Your task to perform on an android device: Open Google Chrome and click the shortcut for Amazon.com Image 0: 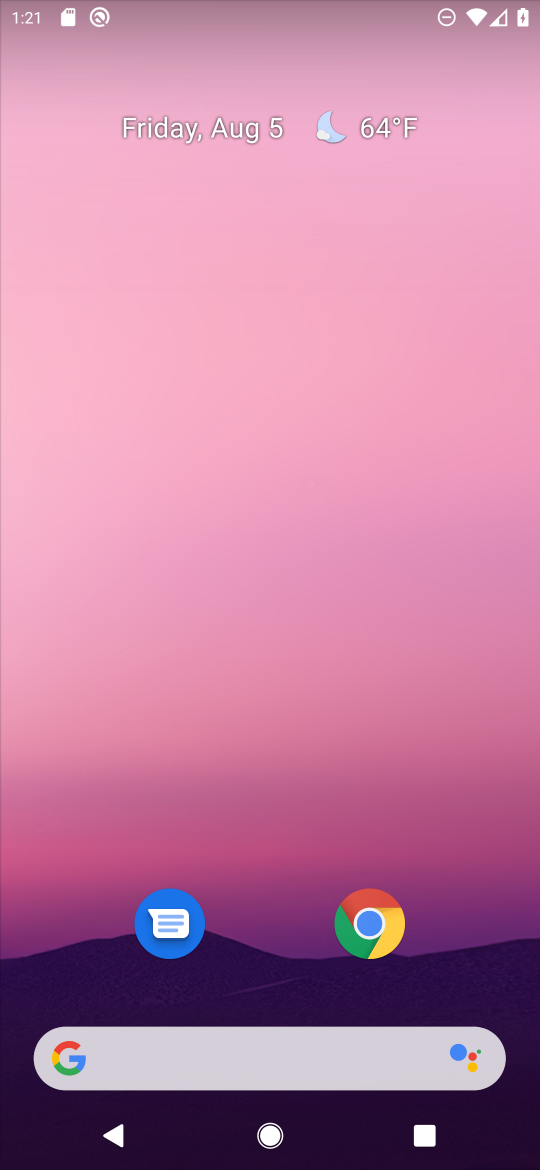
Step 0: click (374, 891)
Your task to perform on an android device: Open Google Chrome and click the shortcut for Amazon.com Image 1: 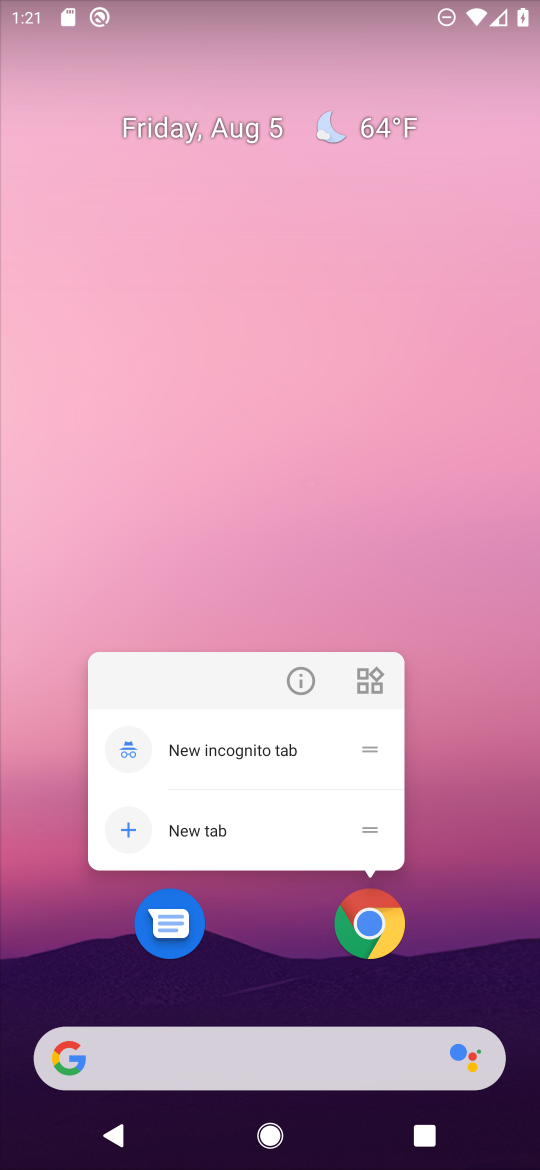
Step 1: click (372, 957)
Your task to perform on an android device: Open Google Chrome and click the shortcut for Amazon.com Image 2: 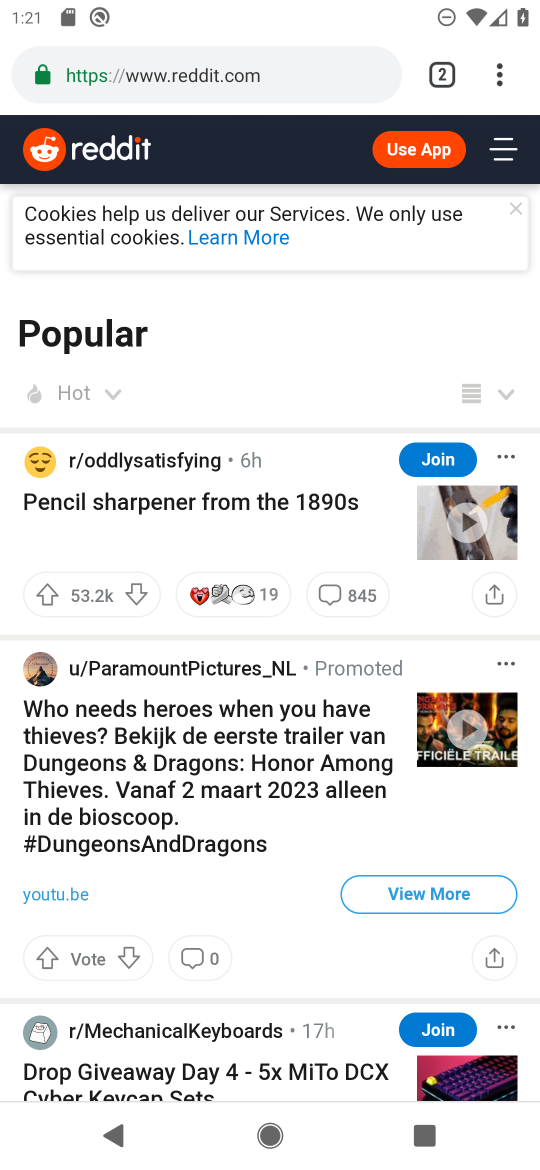
Step 2: click (430, 67)
Your task to perform on an android device: Open Google Chrome and click the shortcut for Amazon.com Image 3: 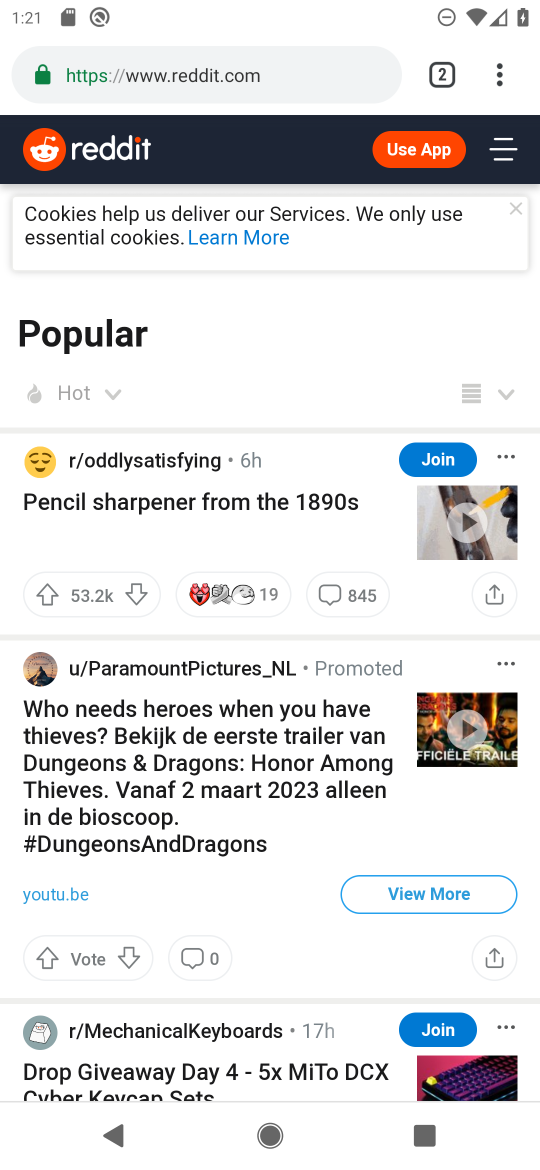
Step 3: click (447, 75)
Your task to perform on an android device: Open Google Chrome and click the shortcut for Amazon.com Image 4: 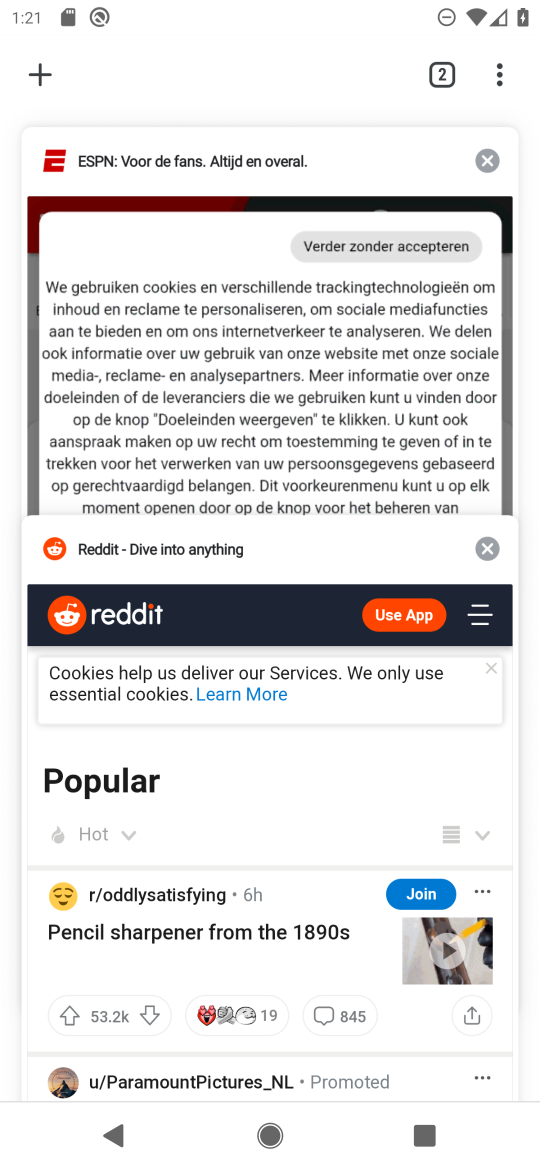
Step 4: click (20, 72)
Your task to perform on an android device: Open Google Chrome and click the shortcut for Amazon.com Image 5: 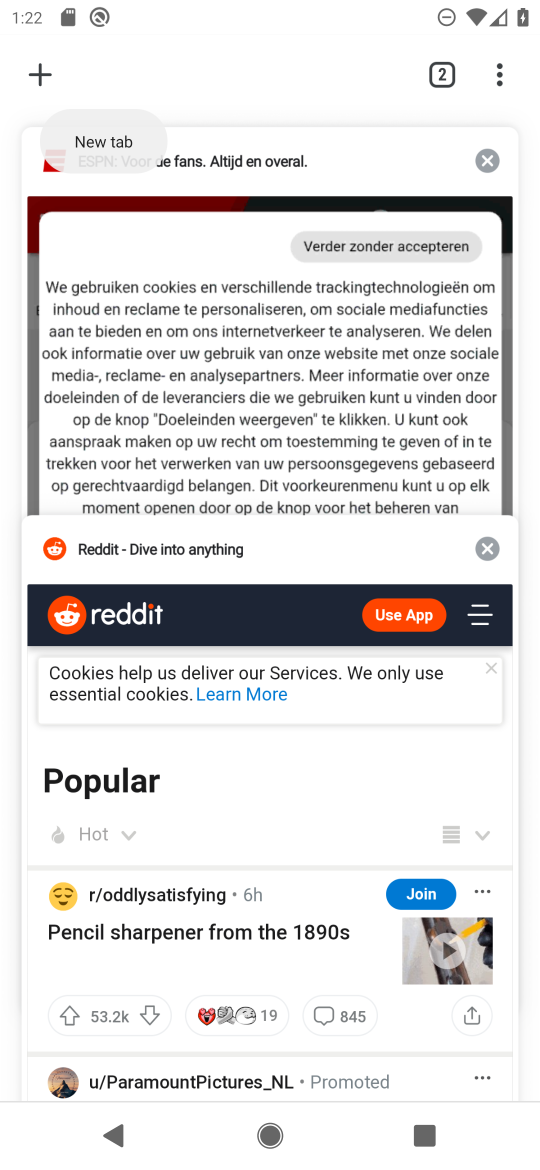
Step 5: click (42, 79)
Your task to perform on an android device: Open Google Chrome and click the shortcut for Amazon.com Image 6: 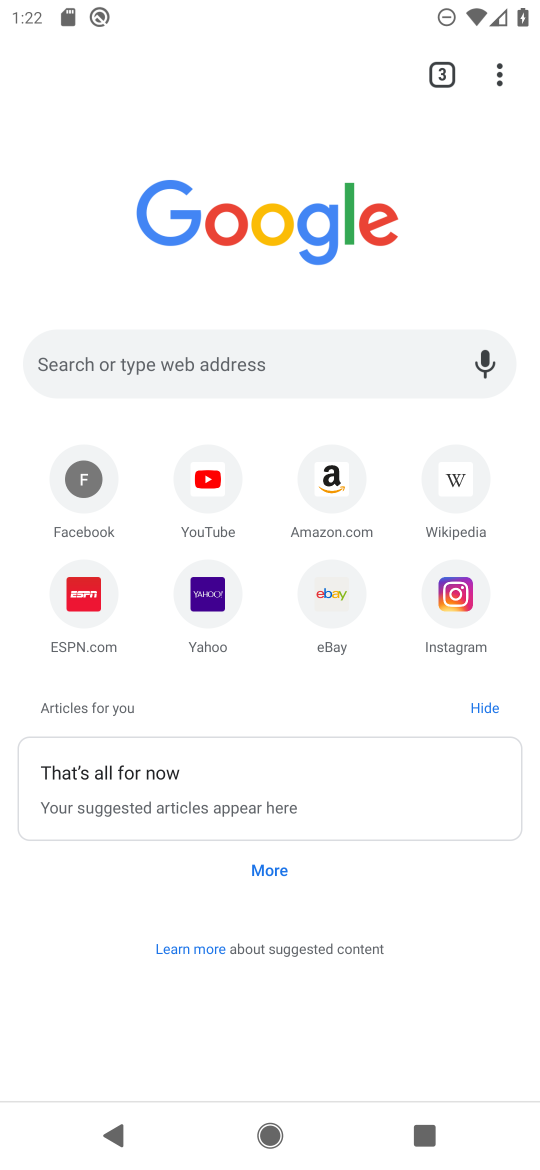
Step 6: click (334, 476)
Your task to perform on an android device: Open Google Chrome and click the shortcut for Amazon.com Image 7: 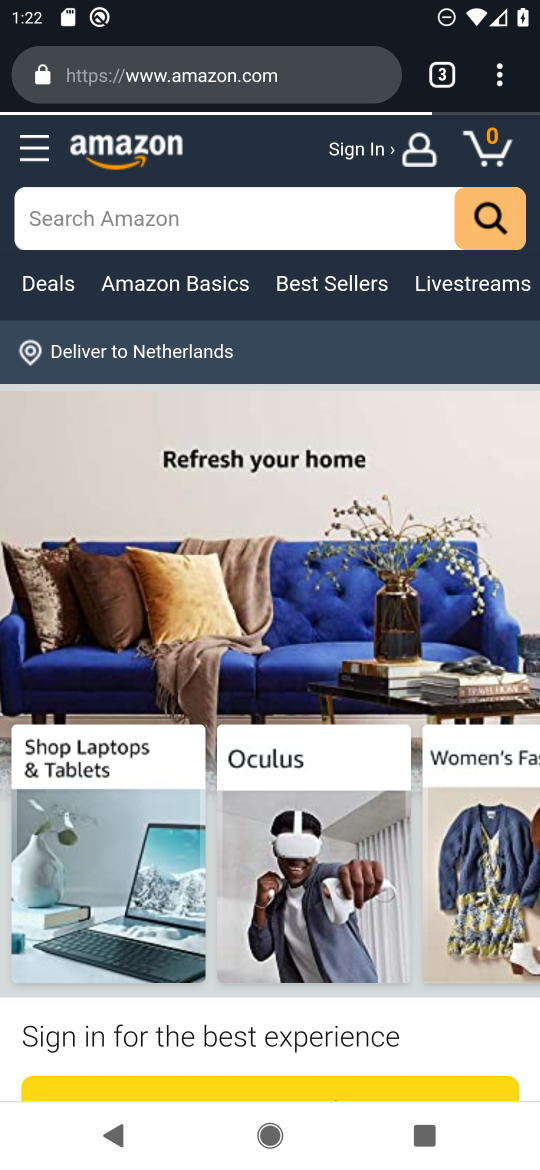
Step 7: task complete